Your task to perform on an android device: Open display settings Image 0: 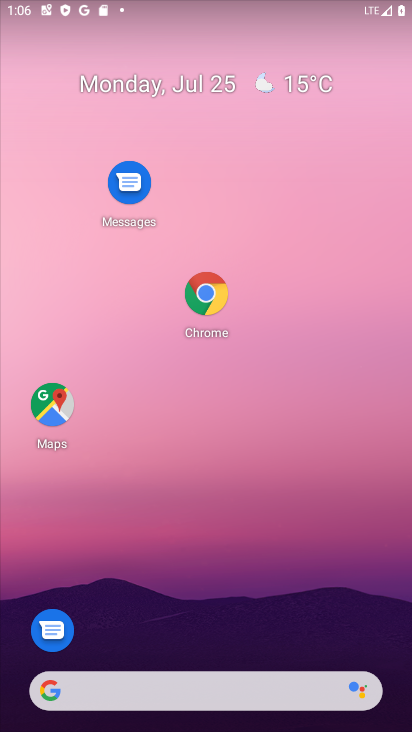
Step 0: drag from (324, 575) to (229, 114)
Your task to perform on an android device: Open display settings Image 1: 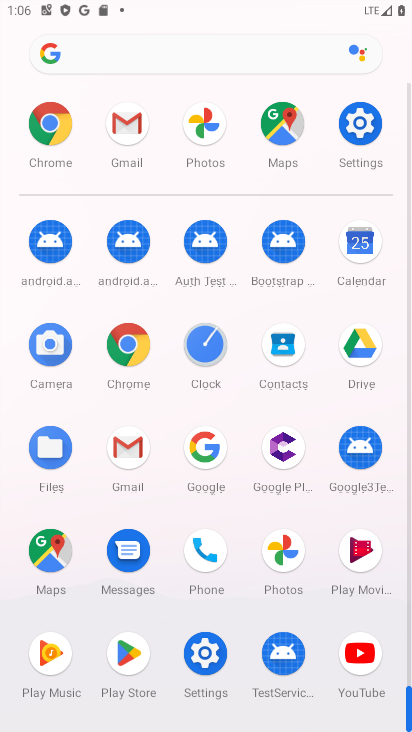
Step 1: click (347, 134)
Your task to perform on an android device: Open display settings Image 2: 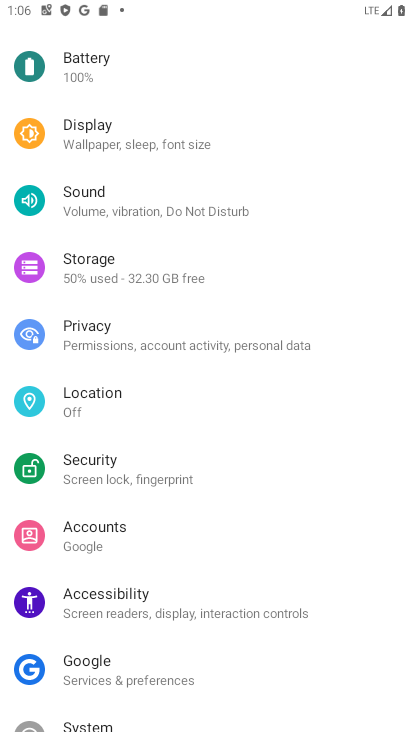
Step 2: click (58, 147)
Your task to perform on an android device: Open display settings Image 3: 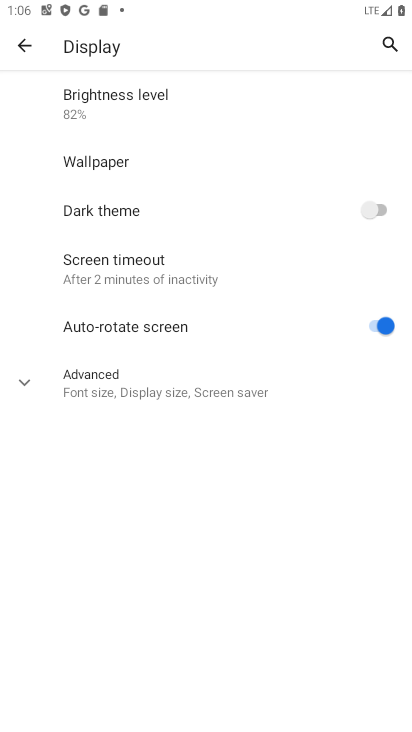
Step 3: task complete